Your task to perform on an android device: Check the price on the Dyson V11 Motorhead on Best Buy Image 0: 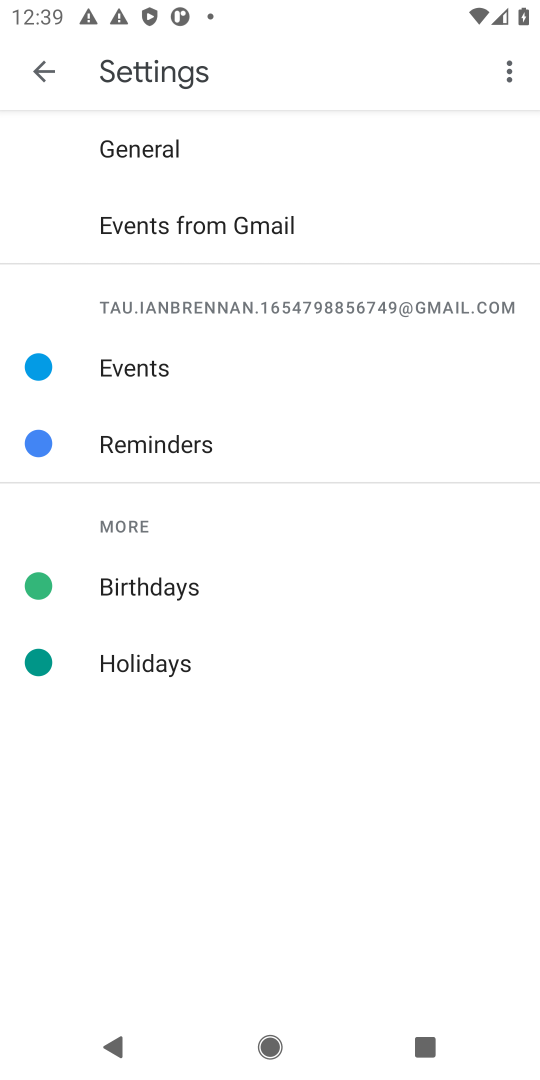
Step 0: press home button
Your task to perform on an android device: Check the price on the Dyson V11 Motorhead on Best Buy Image 1: 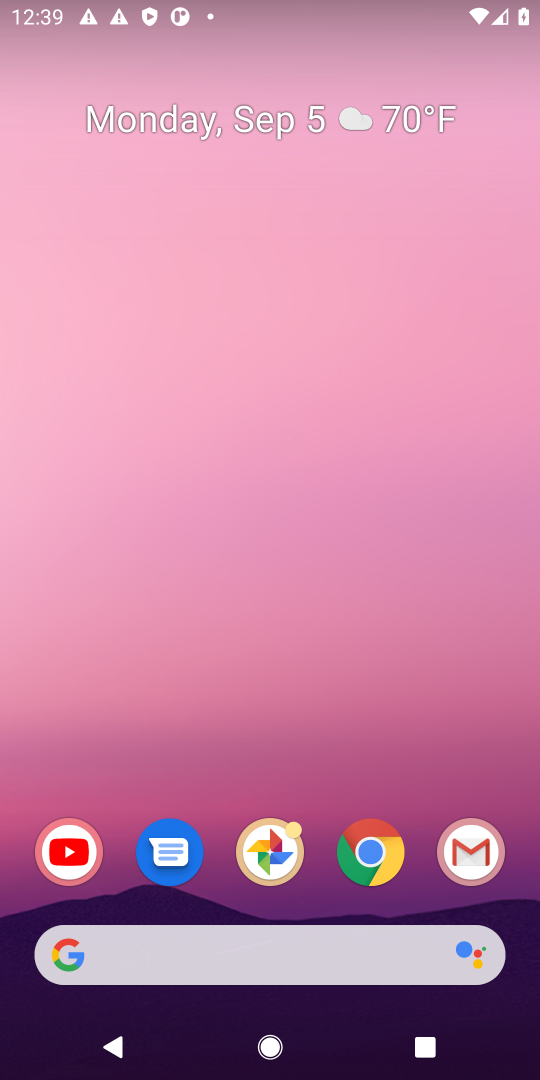
Step 1: click (377, 848)
Your task to perform on an android device: Check the price on the Dyson V11 Motorhead on Best Buy Image 2: 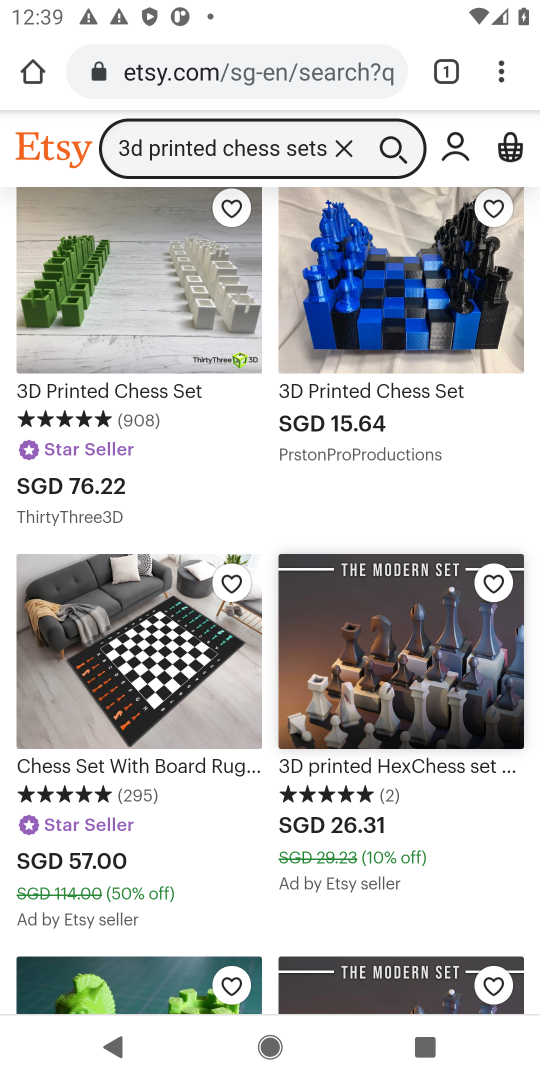
Step 2: click (272, 49)
Your task to perform on an android device: Check the price on the Dyson V11 Motorhead on Best Buy Image 3: 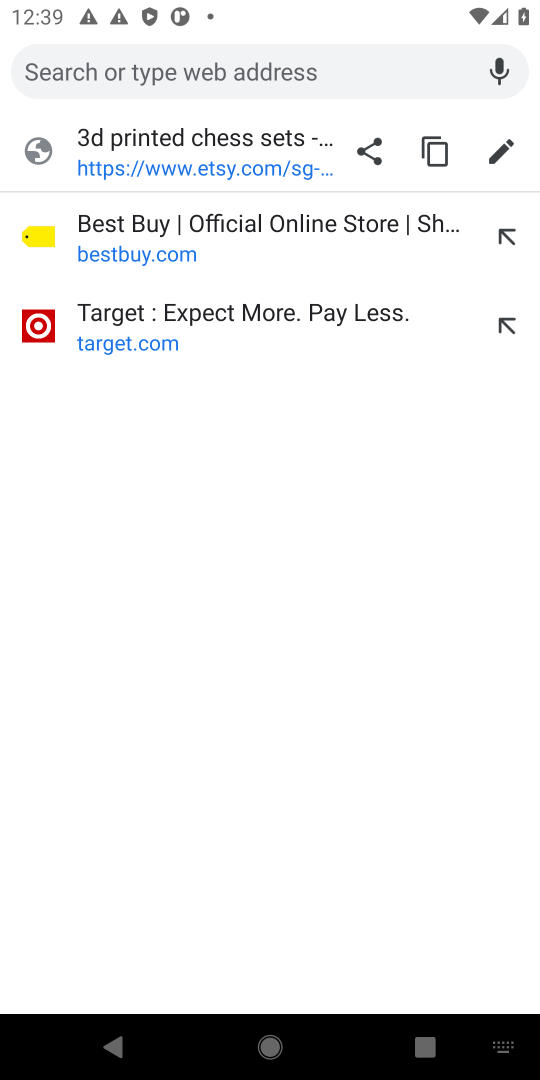
Step 3: type "Best buy"
Your task to perform on an android device: Check the price on the Dyson V11 Motorhead on Best Buy Image 4: 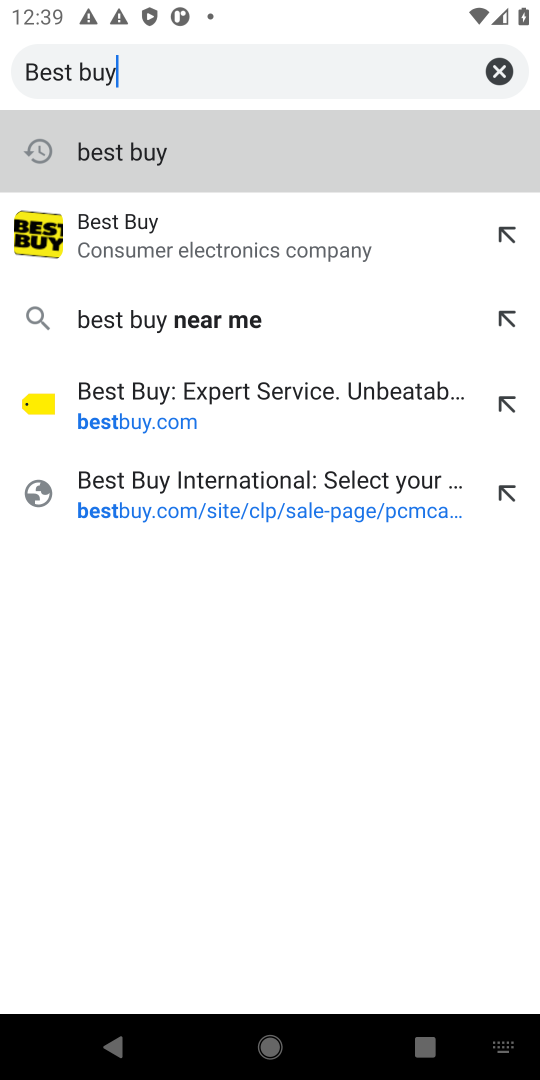
Step 4: click (137, 222)
Your task to perform on an android device: Check the price on the Dyson V11 Motorhead on Best Buy Image 5: 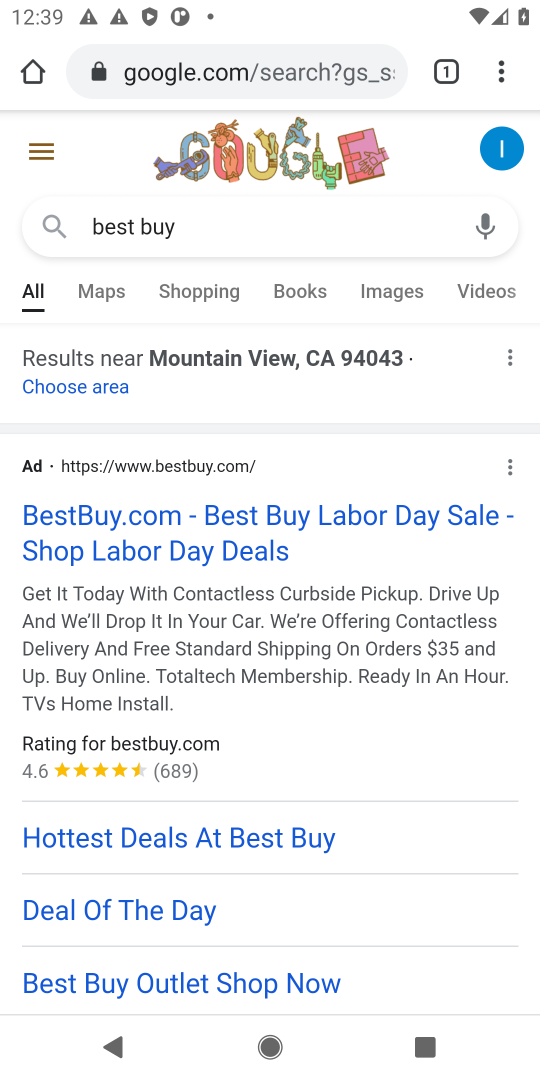
Step 5: click (90, 518)
Your task to perform on an android device: Check the price on the Dyson V11 Motorhead on Best Buy Image 6: 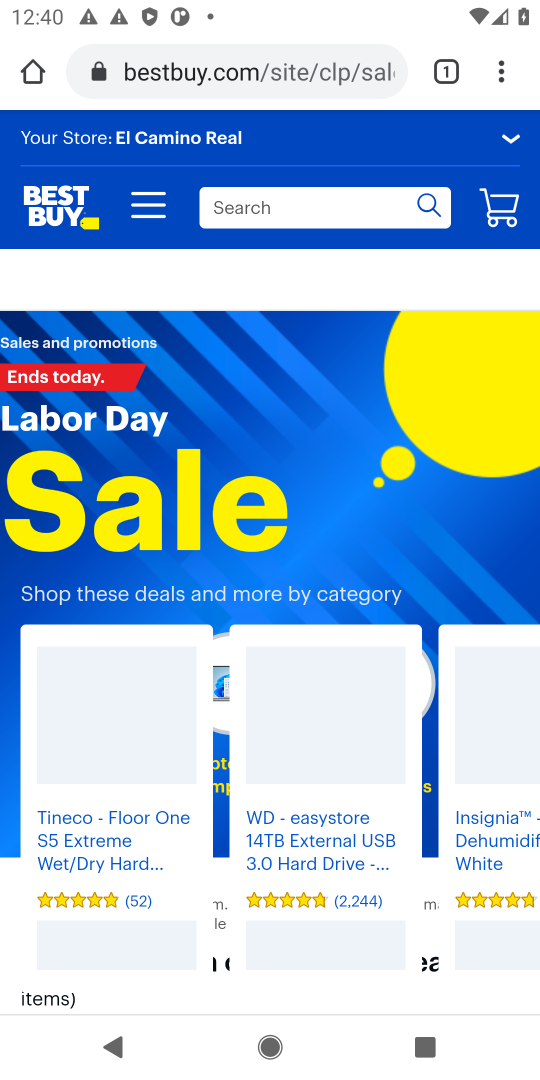
Step 6: click (267, 200)
Your task to perform on an android device: Check the price on the Dyson V11 Motorhead on Best Buy Image 7: 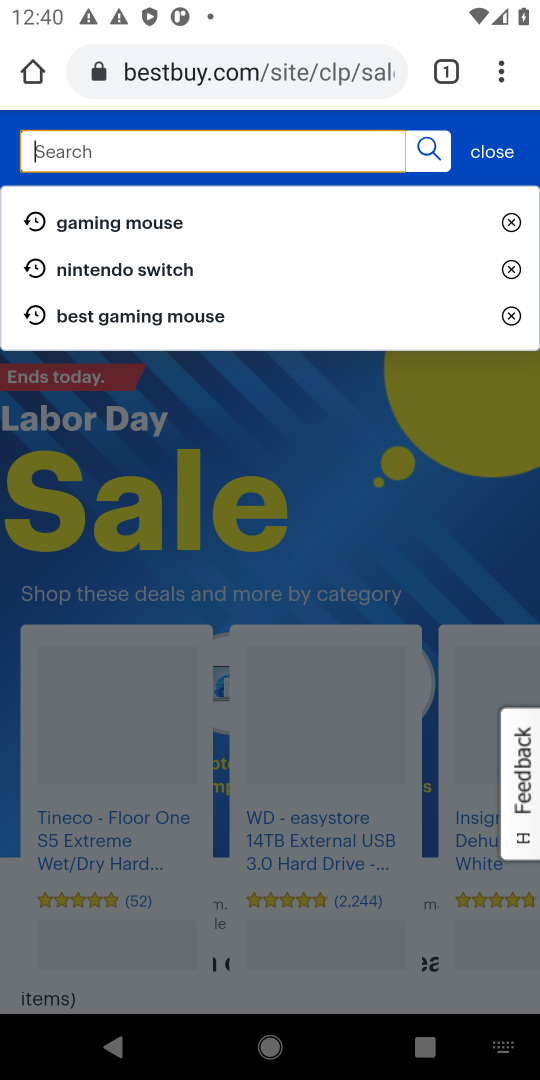
Step 7: type "Dyson V11 Motorhead"
Your task to perform on an android device: Check the price on the Dyson V11 Motorhead on Best Buy Image 8: 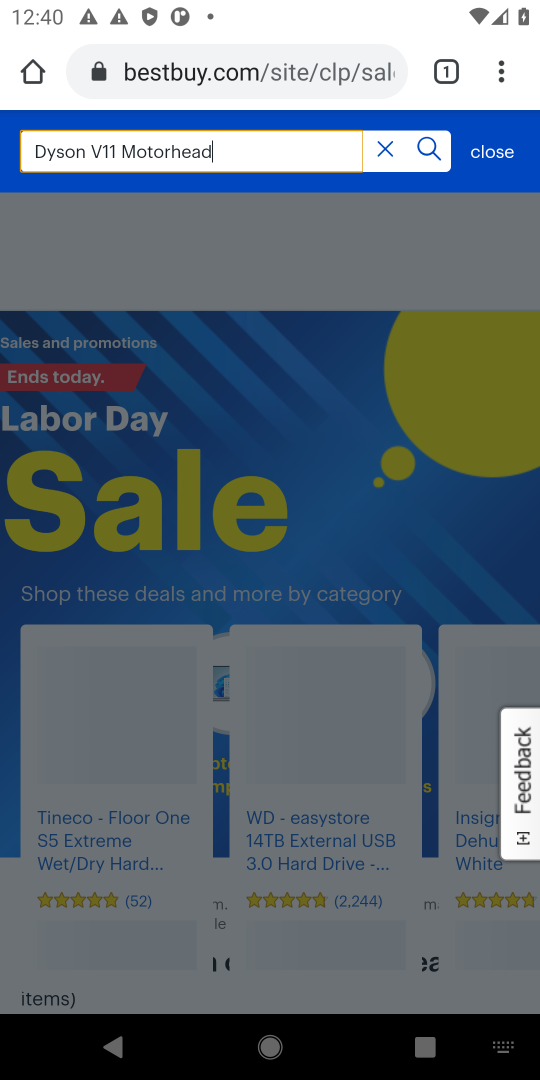
Step 8: click (426, 147)
Your task to perform on an android device: Check the price on the Dyson V11 Motorhead on Best Buy Image 9: 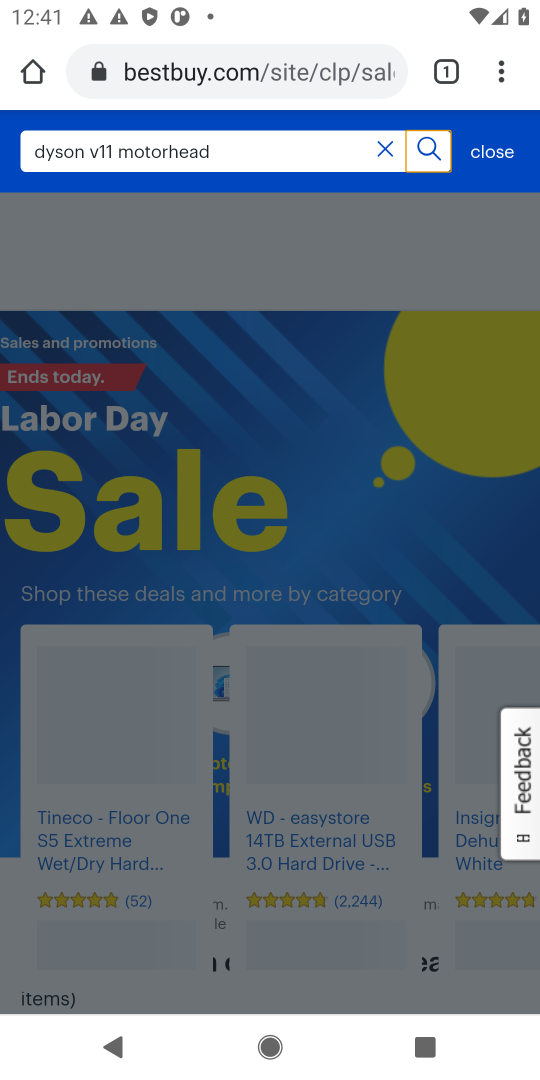
Step 9: click (428, 142)
Your task to perform on an android device: Check the price on the Dyson V11 Motorhead on Best Buy Image 10: 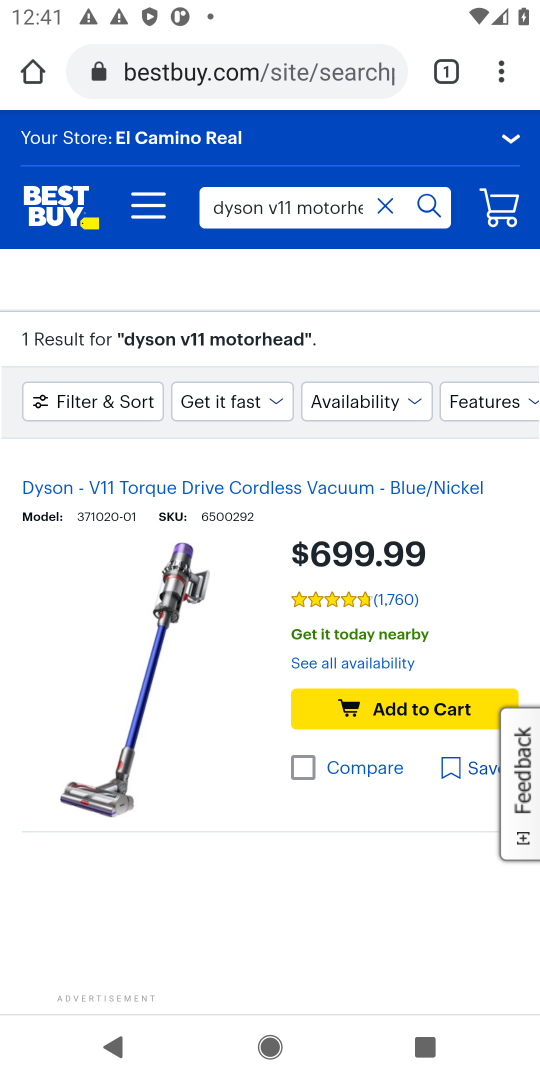
Step 10: task complete